Your task to perform on an android device: Open Chrome and go to the settings page Image 0: 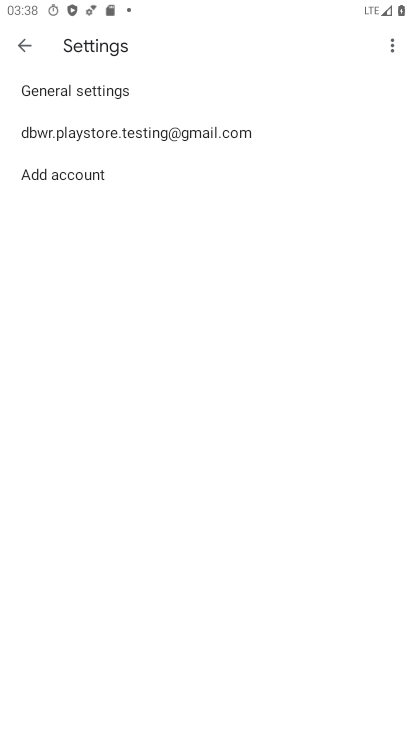
Step 0: press back button
Your task to perform on an android device: Open Chrome and go to the settings page Image 1: 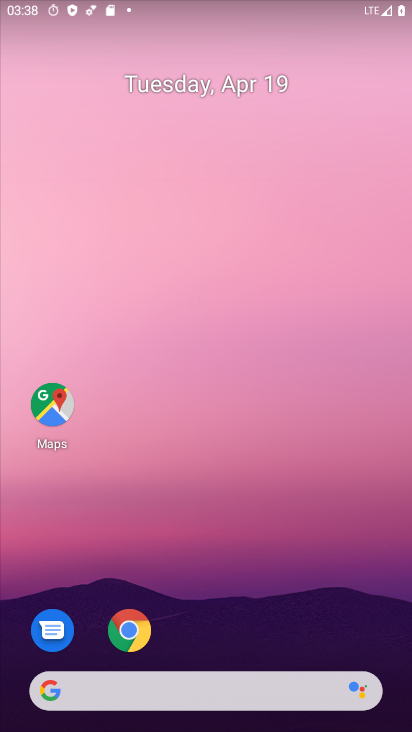
Step 1: click (119, 627)
Your task to perform on an android device: Open Chrome and go to the settings page Image 2: 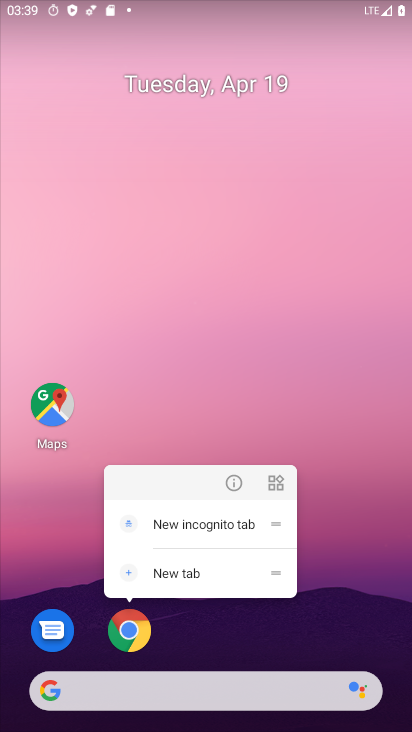
Step 2: click (123, 611)
Your task to perform on an android device: Open Chrome and go to the settings page Image 3: 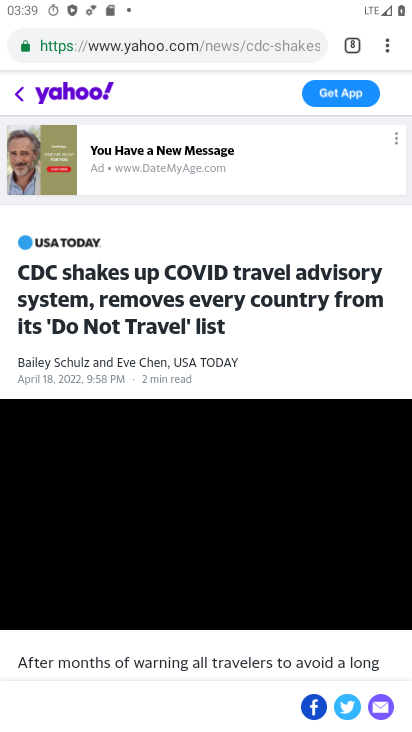
Step 3: click (389, 45)
Your task to perform on an android device: Open Chrome and go to the settings page Image 4: 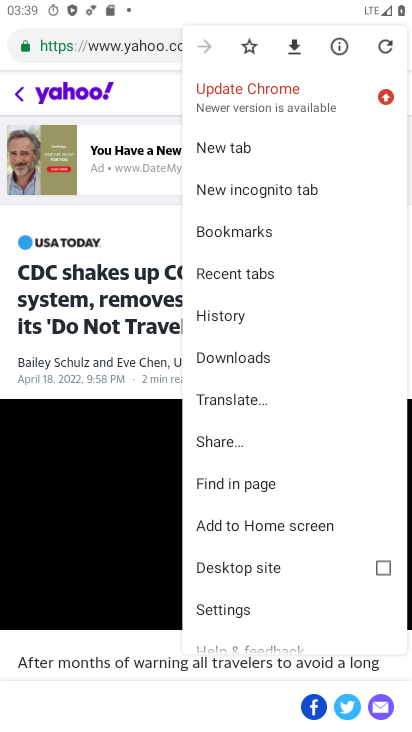
Step 4: click (232, 605)
Your task to perform on an android device: Open Chrome and go to the settings page Image 5: 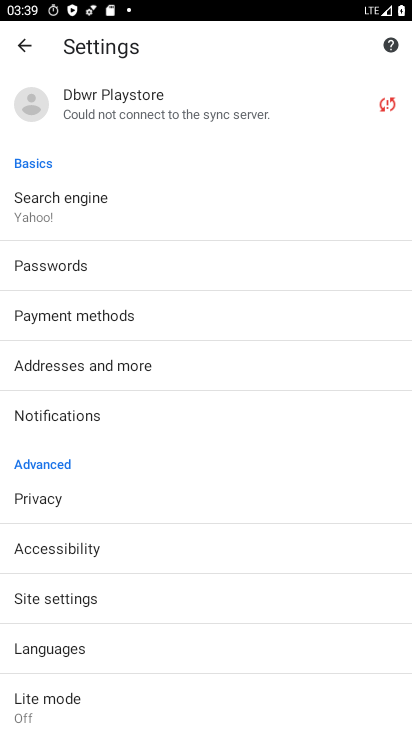
Step 5: task complete